Your task to perform on an android device: change the clock display to analog Image 0: 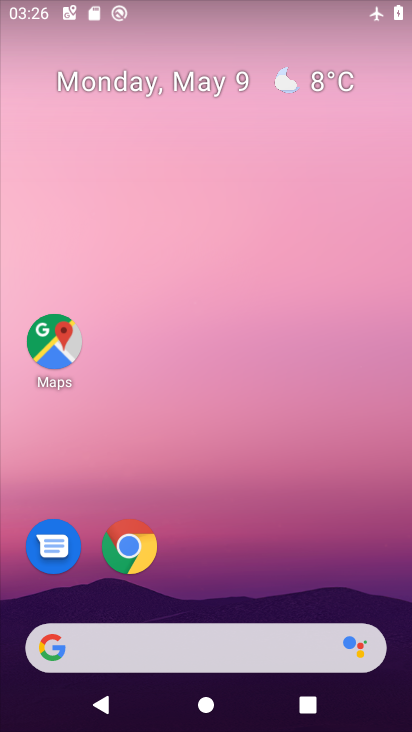
Step 0: drag from (342, 495) to (273, 0)
Your task to perform on an android device: change the clock display to analog Image 1: 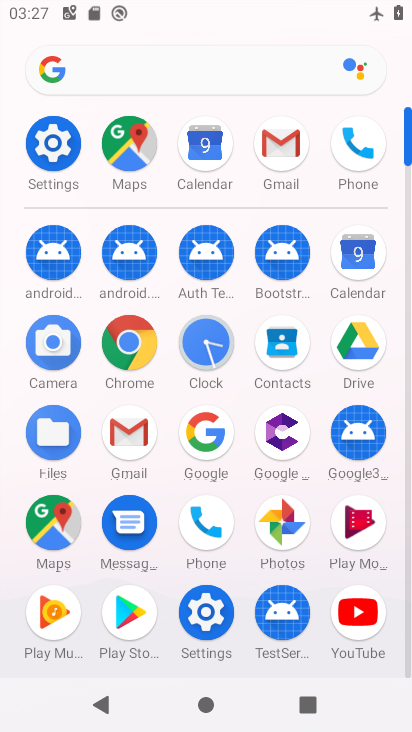
Step 1: click (208, 338)
Your task to perform on an android device: change the clock display to analog Image 2: 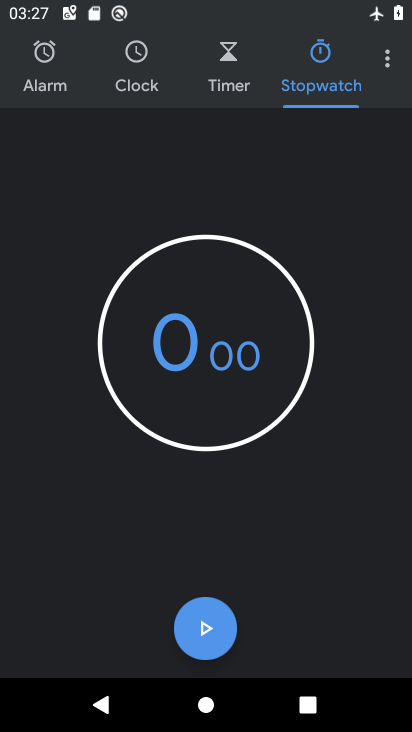
Step 2: click (125, 58)
Your task to perform on an android device: change the clock display to analog Image 3: 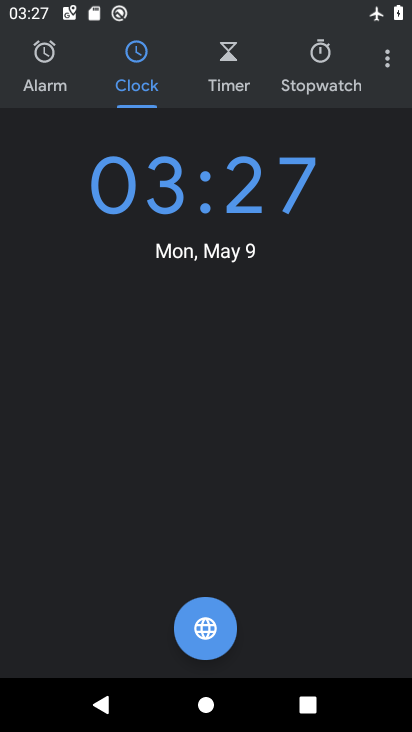
Step 3: click (383, 54)
Your task to perform on an android device: change the clock display to analog Image 4: 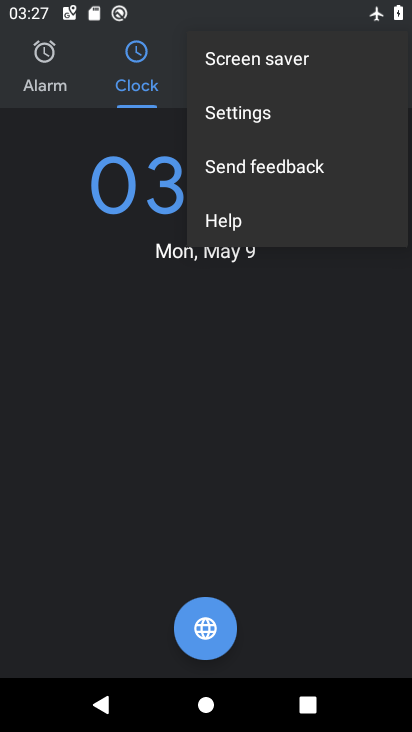
Step 4: click (281, 106)
Your task to perform on an android device: change the clock display to analog Image 5: 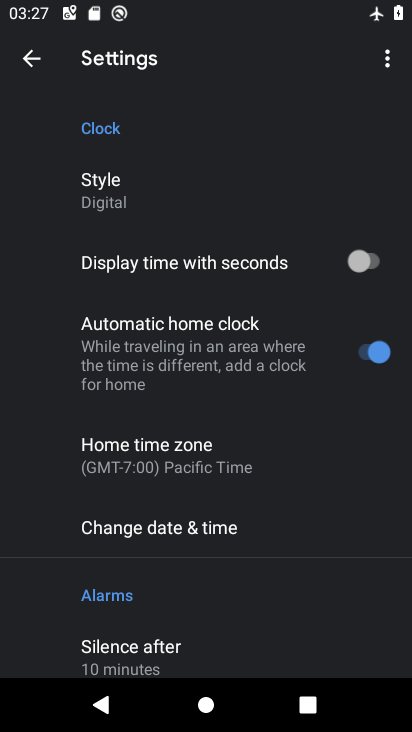
Step 5: click (123, 183)
Your task to perform on an android device: change the clock display to analog Image 6: 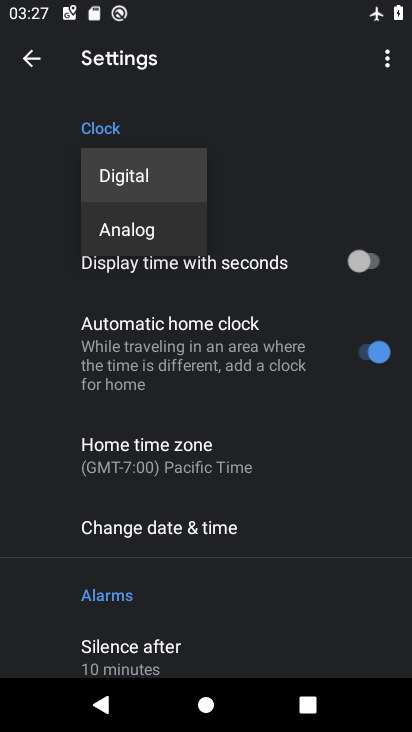
Step 6: click (133, 215)
Your task to perform on an android device: change the clock display to analog Image 7: 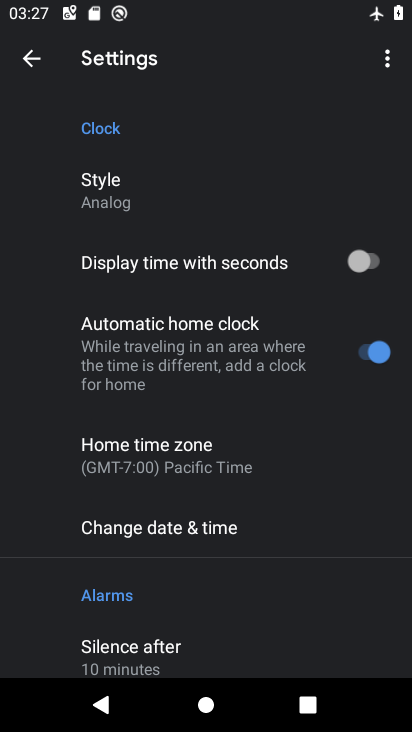
Step 7: task complete